Your task to perform on an android device: Open Chrome and go to settings Image 0: 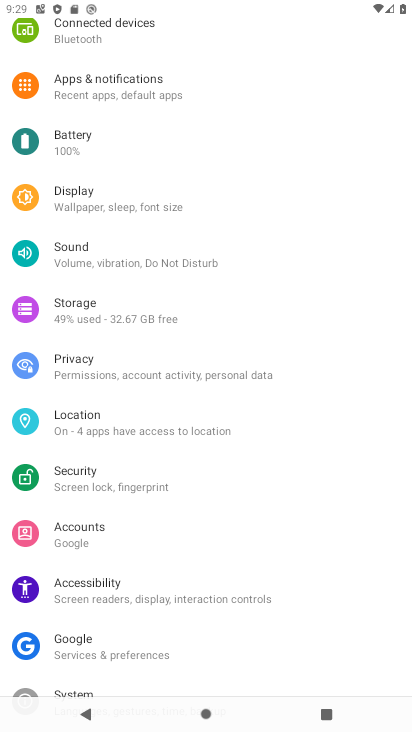
Step 0: press home button
Your task to perform on an android device: Open Chrome and go to settings Image 1: 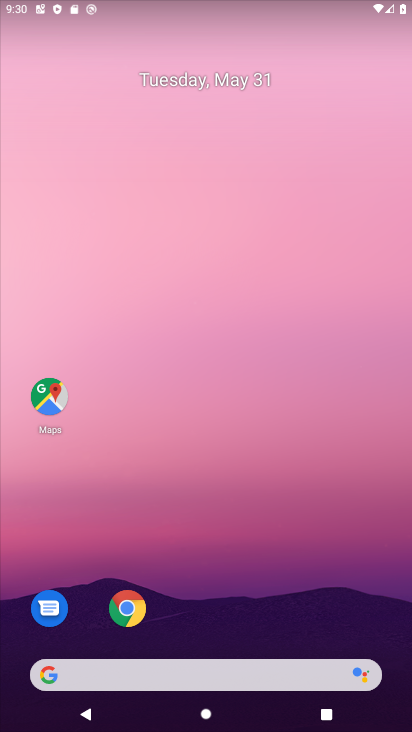
Step 1: click (131, 596)
Your task to perform on an android device: Open Chrome and go to settings Image 2: 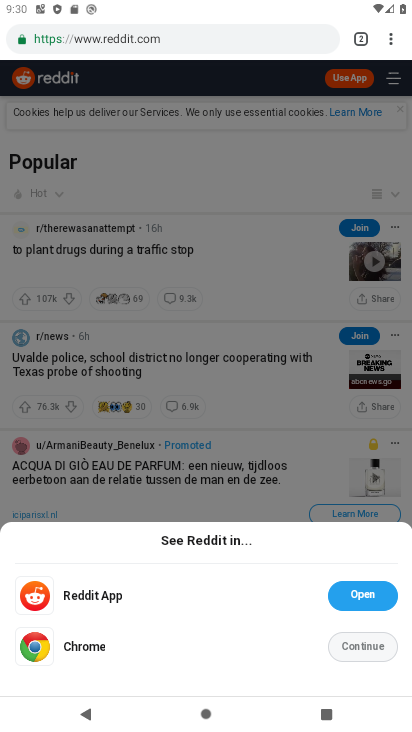
Step 2: click (395, 27)
Your task to perform on an android device: Open Chrome and go to settings Image 3: 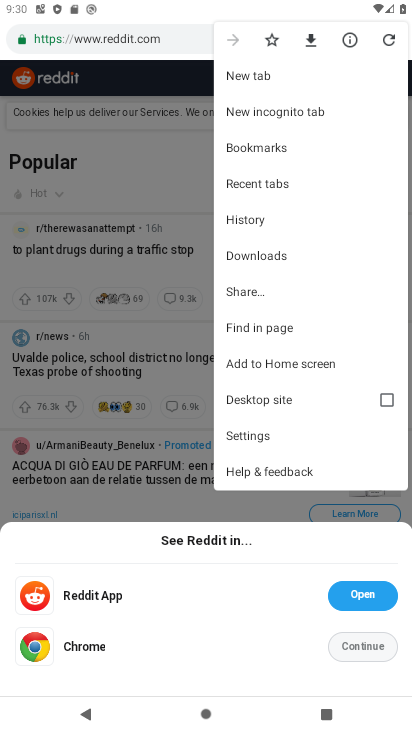
Step 3: click (296, 427)
Your task to perform on an android device: Open Chrome and go to settings Image 4: 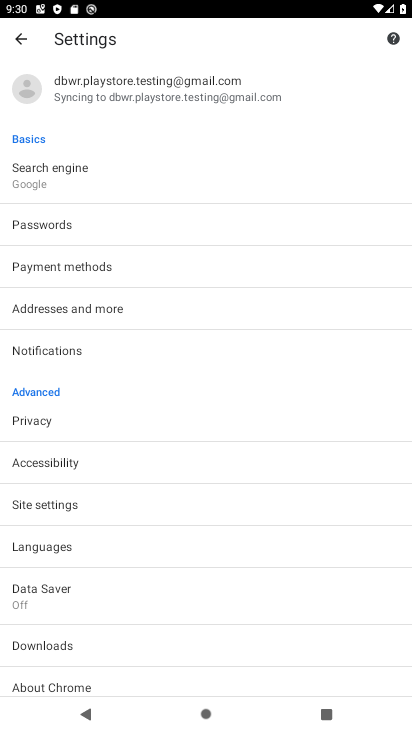
Step 4: task complete